Your task to perform on an android device: toggle location history Image 0: 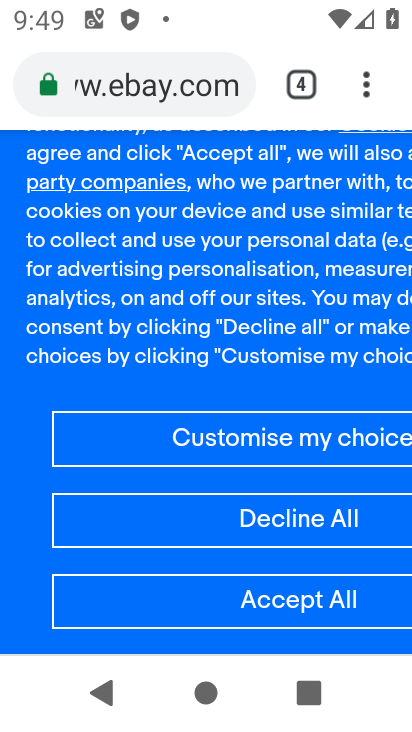
Step 0: press home button
Your task to perform on an android device: toggle location history Image 1: 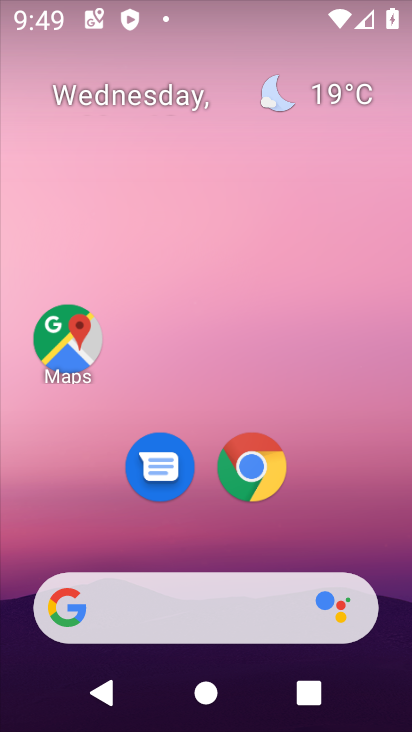
Step 1: drag from (340, 519) to (265, 23)
Your task to perform on an android device: toggle location history Image 2: 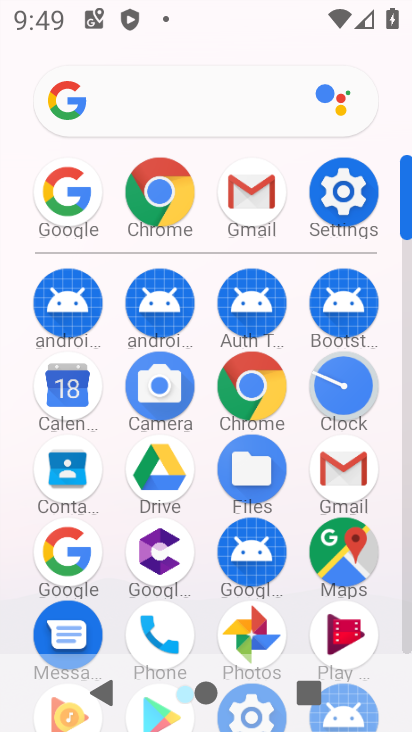
Step 2: click (345, 182)
Your task to perform on an android device: toggle location history Image 3: 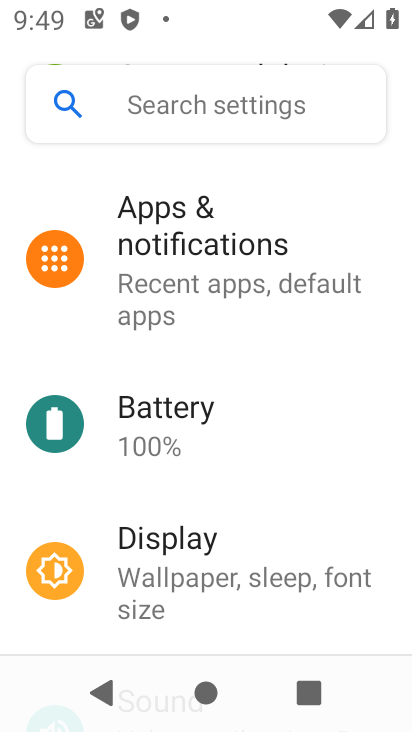
Step 3: drag from (278, 579) to (265, 164)
Your task to perform on an android device: toggle location history Image 4: 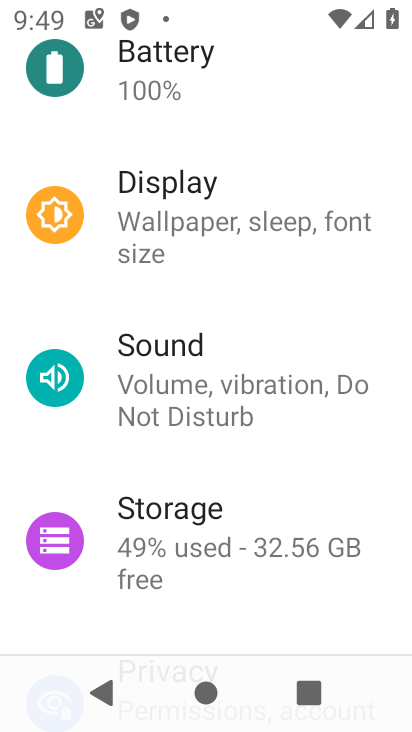
Step 4: drag from (264, 549) to (282, 122)
Your task to perform on an android device: toggle location history Image 5: 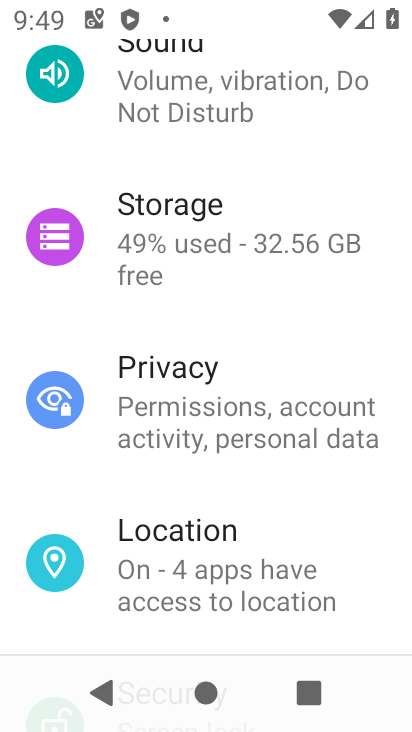
Step 5: click (202, 602)
Your task to perform on an android device: toggle location history Image 6: 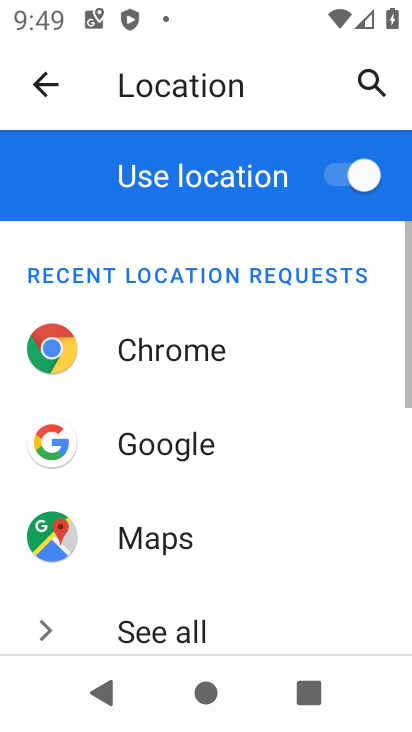
Step 6: drag from (267, 585) to (256, 133)
Your task to perform on an android device: toggle location history Image 7: 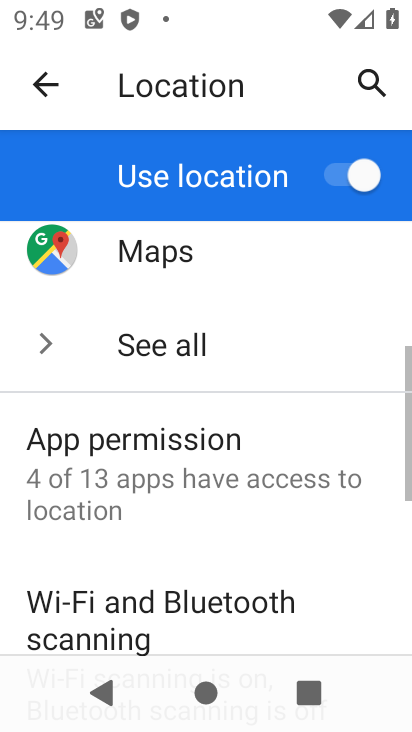
Step 7: drag from (265, 565) to (245, 184)
Your task to perform on an android device: toggle location history Image 8: 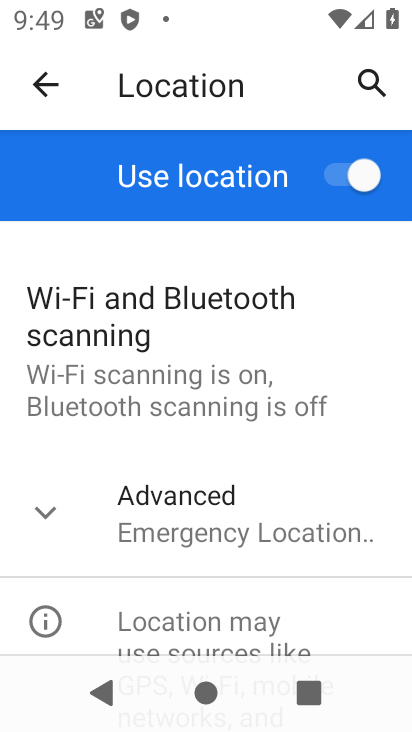
Step 8: click (239, 524)
Your task to perform on an android device: toggle location history Image 9: 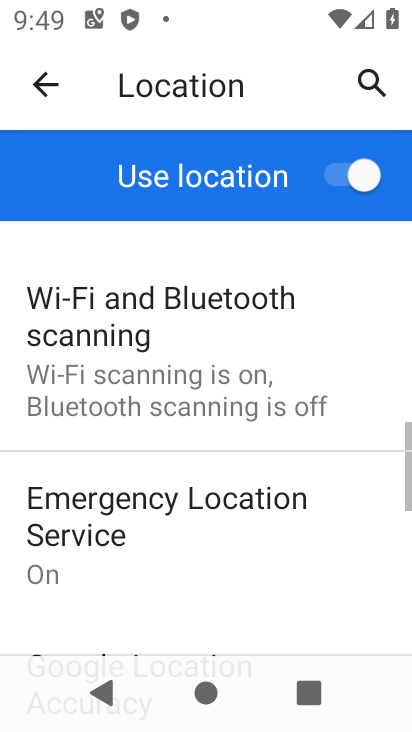
Step 9: drag from (272, 620) to (253, 281)
Your task to perform on an android device: toggle location history Image 10: 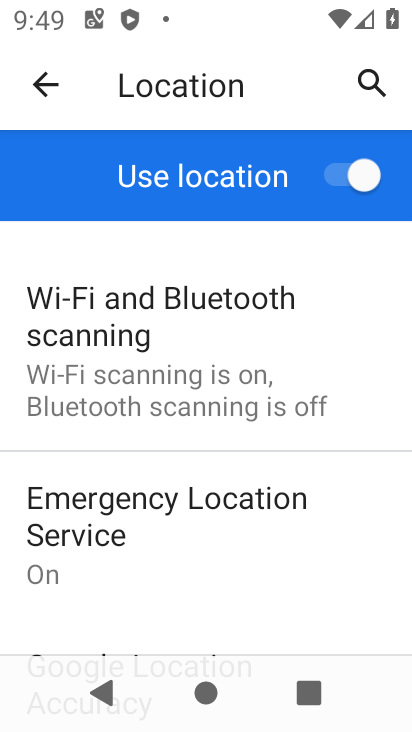
Step 10: drag from (244, 576) to (294, 238)
Your task to perform on an android device: toggle location history Image 11: 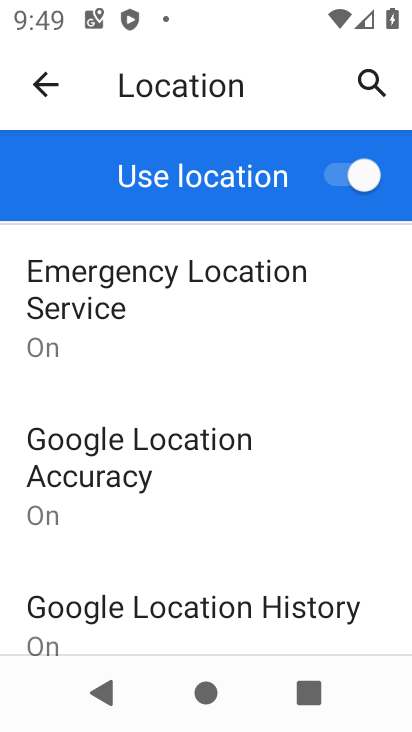
Step 11: click (250, 604)
Your task to perform on an android device: toggle location history Image 12: 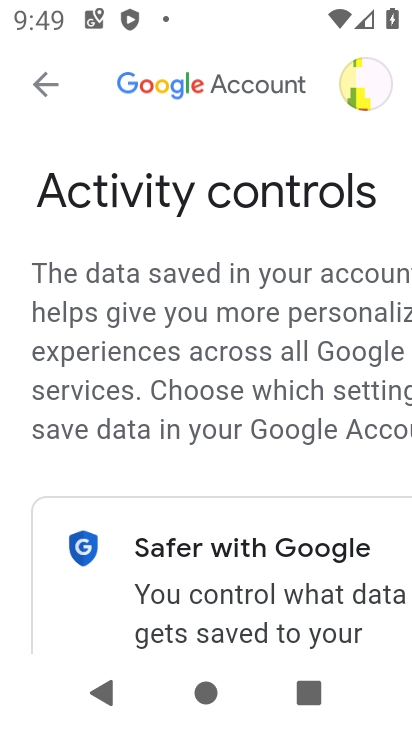
Step 12: drag from (250, 574) to (247, 148)
Your task to perform on an android device: toggle location history Image 13: 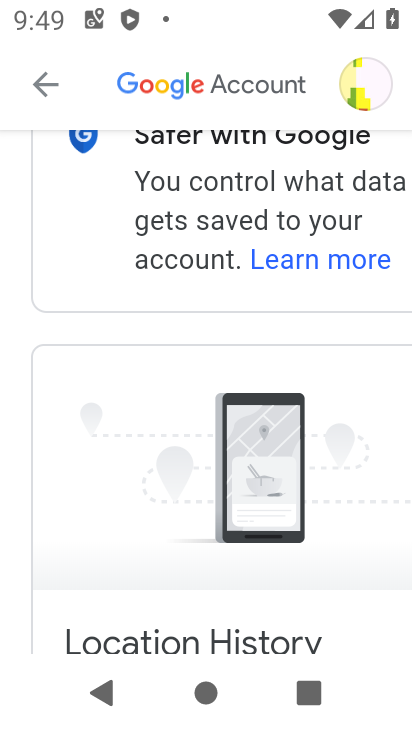
Step 13: drag from (226, 514) to (219, 153)
Your task to perform on an android device: toggle location history Image 14: 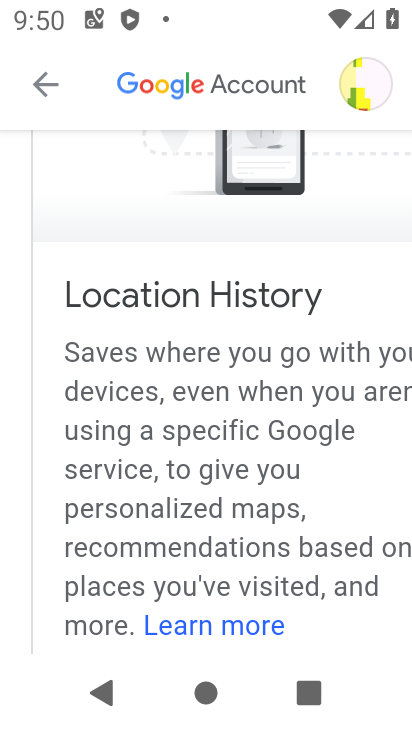
Step 14: drag from (217, 485) to (224, 208)
Your task to perform on an android device: toggle location history Image 15: 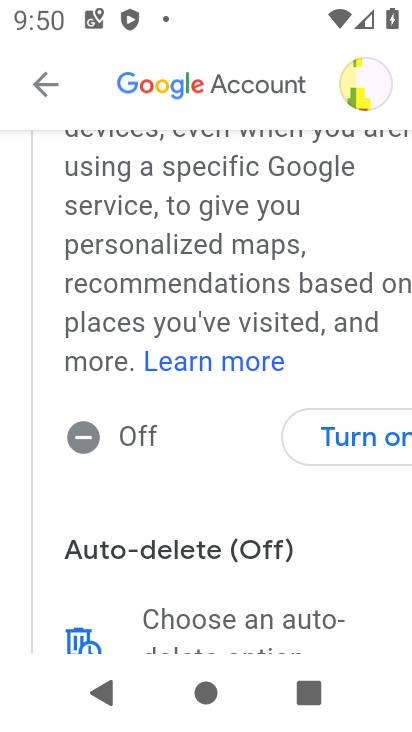
Step 15: click (360, 429)
Your task to perform on an android device: toggle location history Image 16: 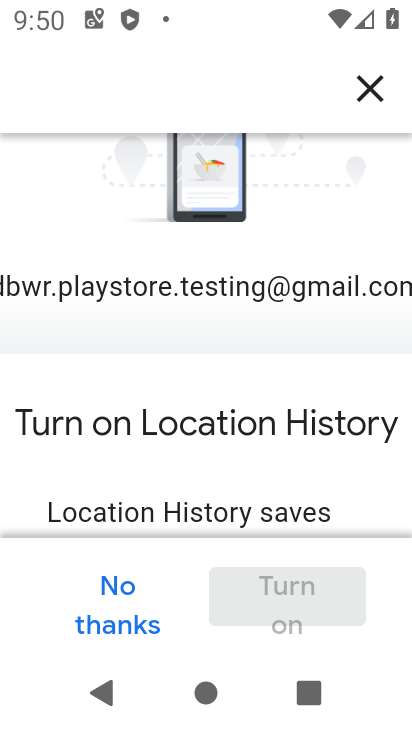
Step 16: drag from (213, 477) to (208, 141)
Your task to perform on an android device: toggle location history Image 17: 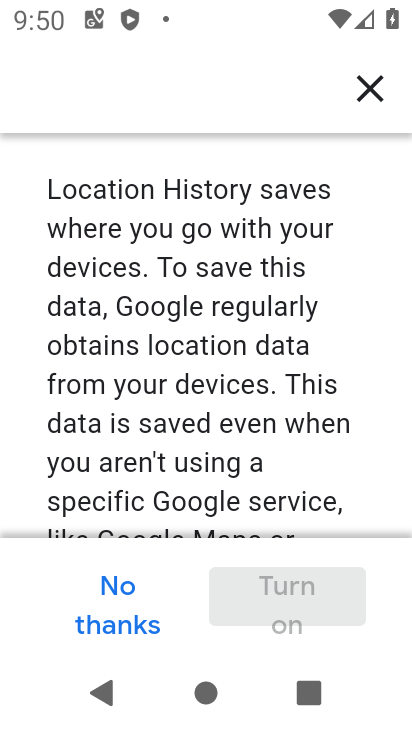
Step 17: drag from (233, 439) to (236, 147)
Your task to perform on an android device: toggle location history Image 18: 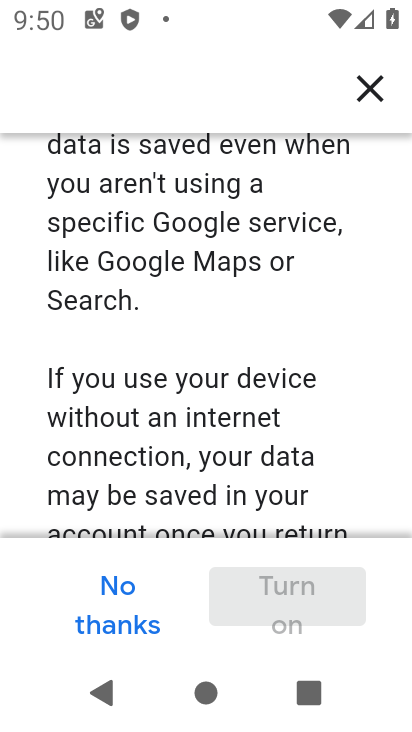
Step 18: drag from (259, 482) to (247, 141)
Your task to perform on an android device: toggle location history Image 19: 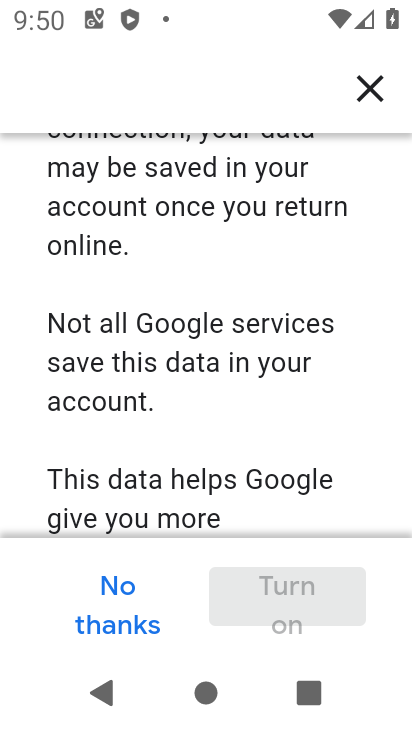
Step 19: drag from (236, 488) to (230, 137)
Your task to perform on an android device: toggle location history Image 20: 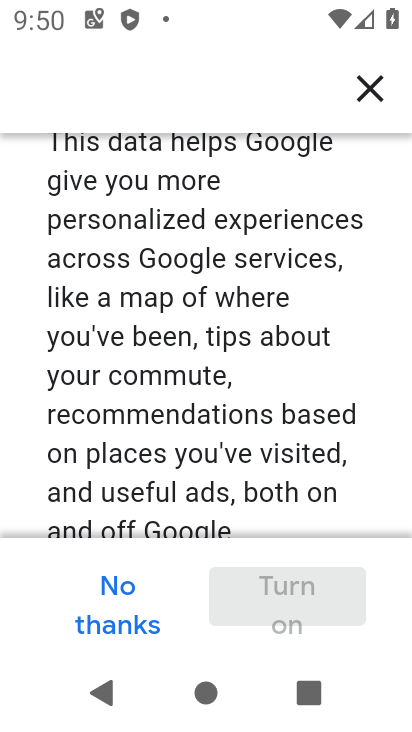
Step 20: drag from (244, 508) to (218, 117)
Your task to perform on an android device: toggle location history Image 21: 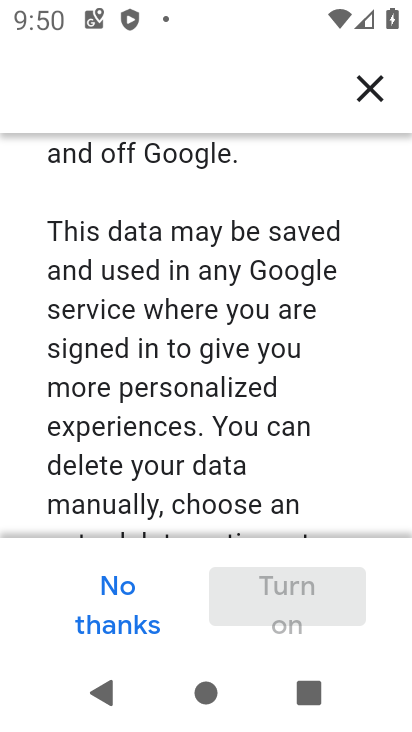
Step 21: drag from (251, 516) to (228, 100)
Your task to perform on an android device: toggle location history Image 22: 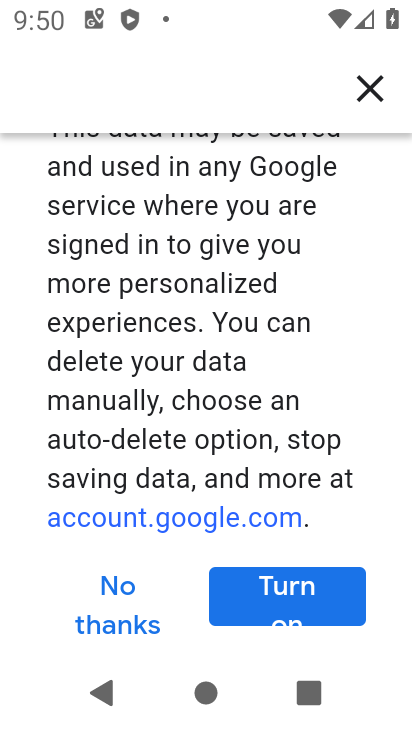
Step 22: click (311, 599)
Your task to perform on an android device: toggle location history Image 23: 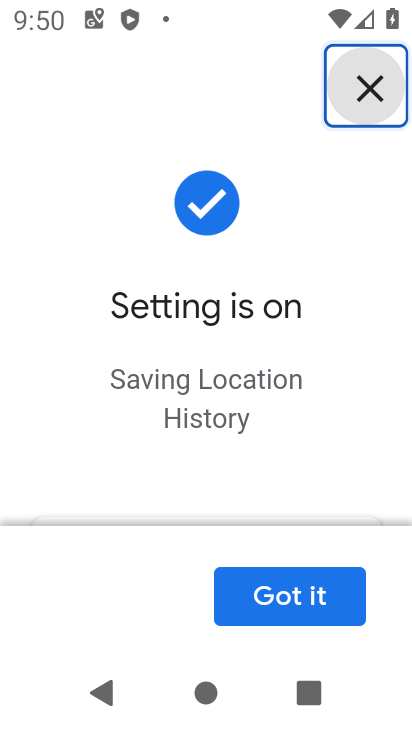
Step 23: click (295, 599)
Your task to perform on an android device: toggle location history Image 24: 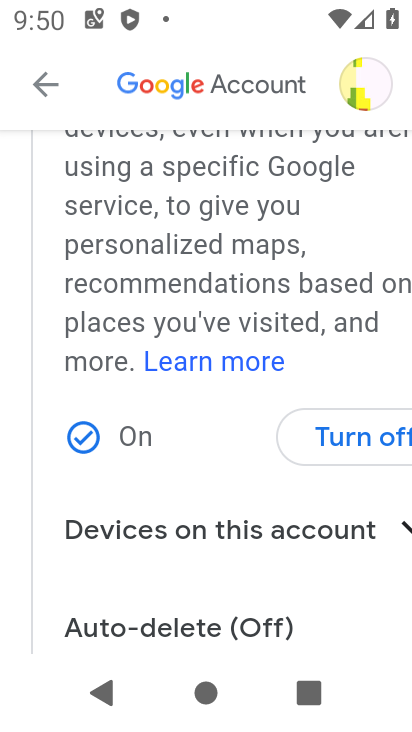
Step 24: task complete